Your task to perform on an android device: turn on notifications settings in the gmail app Image 0: 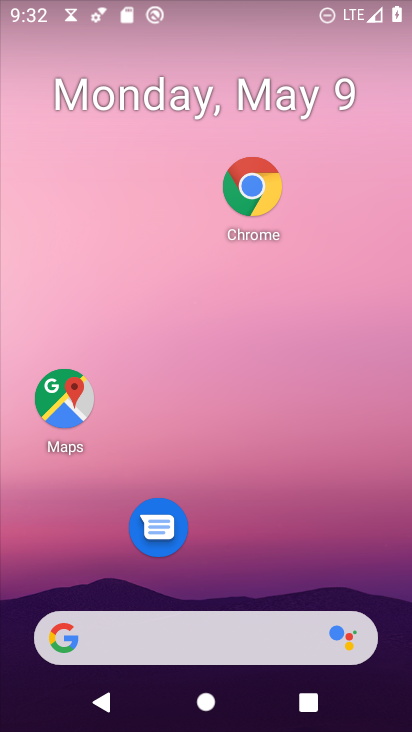
Step 0: drag from (209, 582) to (214, 100)
Your task to perform on an android device: turn on notifications settings in the gmail app Image 1: 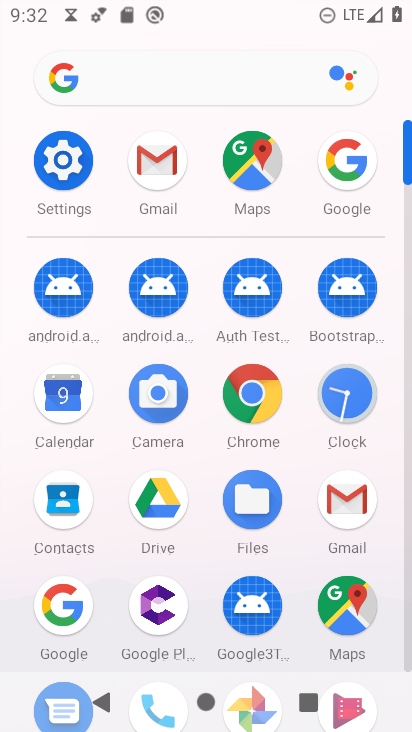
Step 1: click (159, 157)
Your task to perform on an android device: turn on notifications settings in the gmail app Image 2: 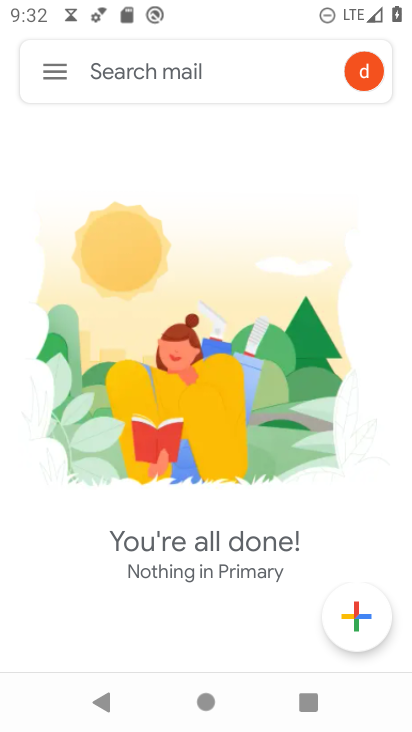
Step 2: click (56, 67)
Your task to perform on an android device: turn on notifications settings in the gmail app Image 3: 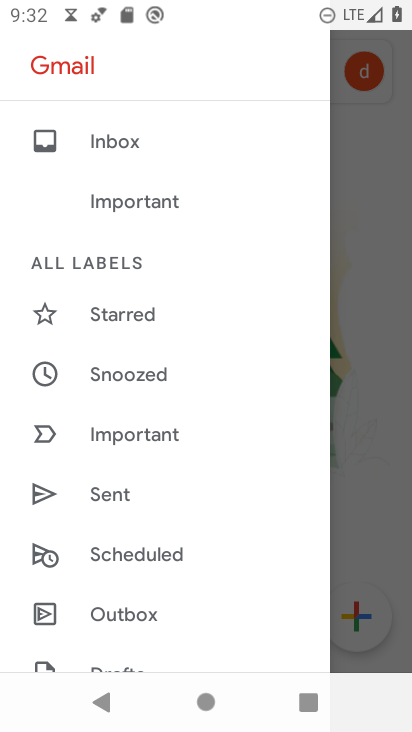
Step 3: drag from (161, 606) to (153, 306)
Your task to perform on an android device: turn on notifications settings in the gmail app Image 4: 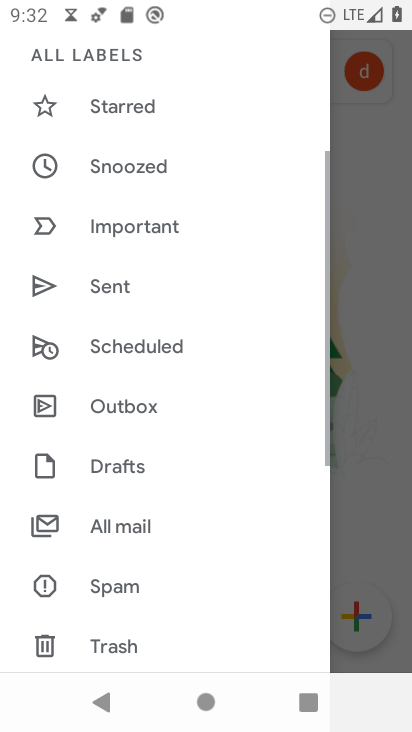
Step 4: drag from (152, 185) to (152, 85)
Your task to perform on an android device: turn on notifications settings in the gmail app Image 5: 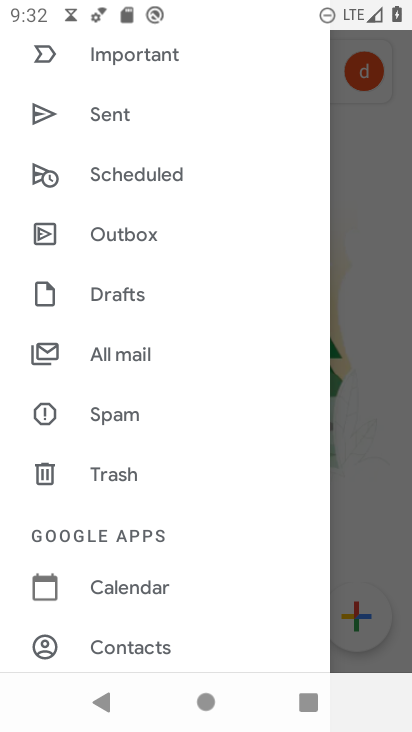
Step 5: drag from (156, 614) to (153, 240)
Your task to perform on an android device: turn on notifications settings in the gmail app Image 6: 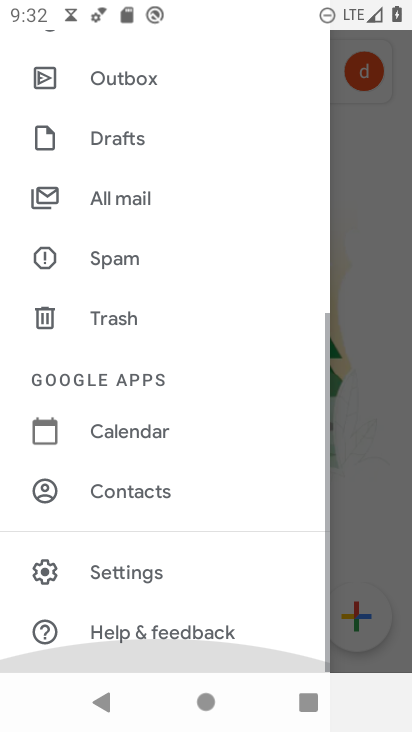
Step 6: drag from (152, 218) to (152, 182)
Your task to perform on an android device: turn on notifications settings in the gmail app Image 7: 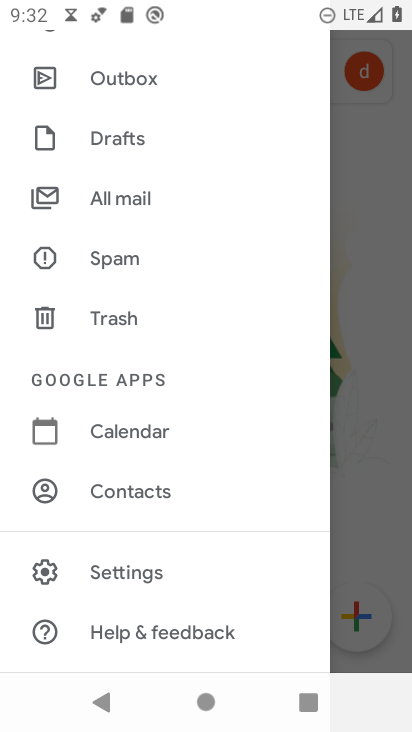
Step 7: click (173, 564)
Your task to perform on an android device: turn on notifications settings in the gmail app Image 8: 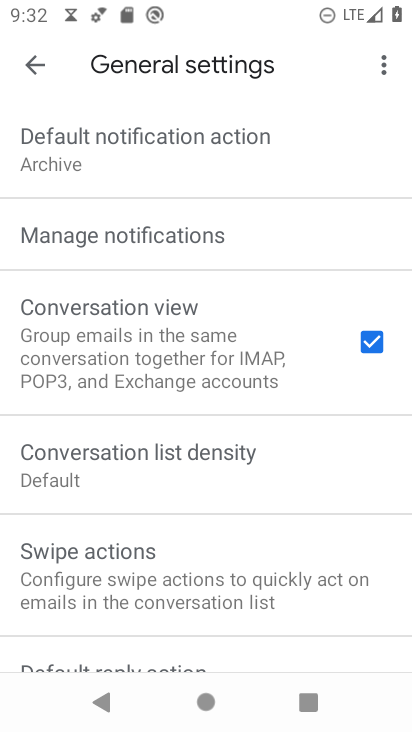
Step 8: click (237, 231)
Your task to perform on an android device: turn on notifications settings in the gmail app Image 9: 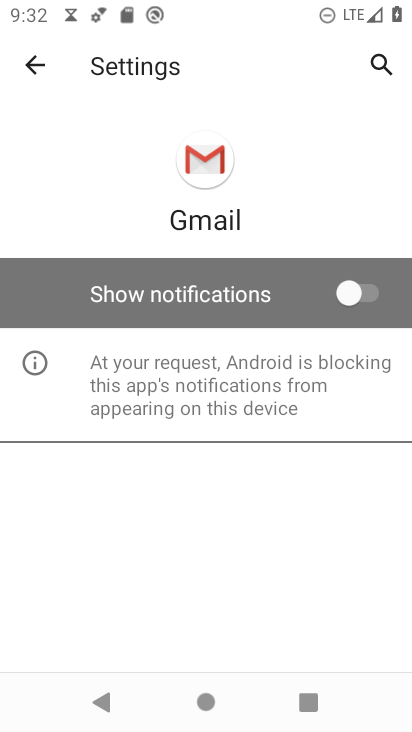
Step 9: click (361, 288)
Your task to perform on an android device: turn on notifications settings in the gmail app Image 10: 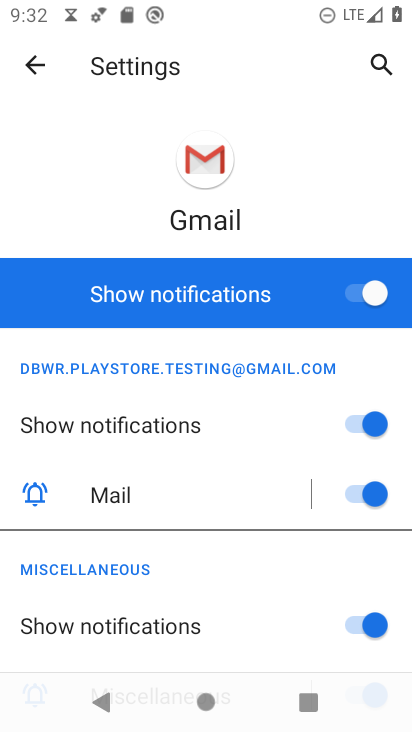
Step 10: task complete